Your task to perform on an android device: check battery use Image 0: 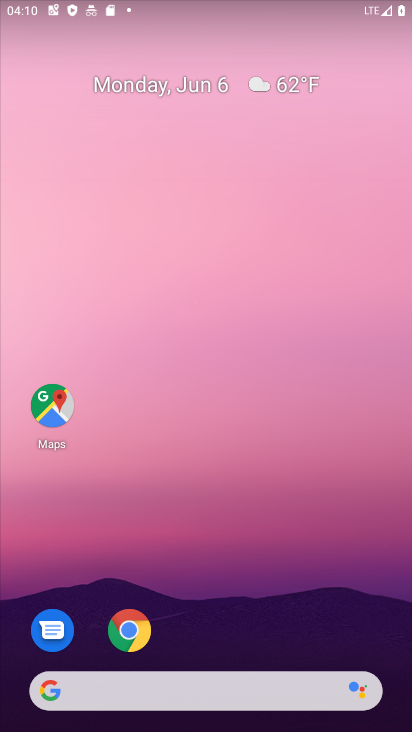
Step 0: press home button
Your task to perform on an android device: check battery use Image 1: 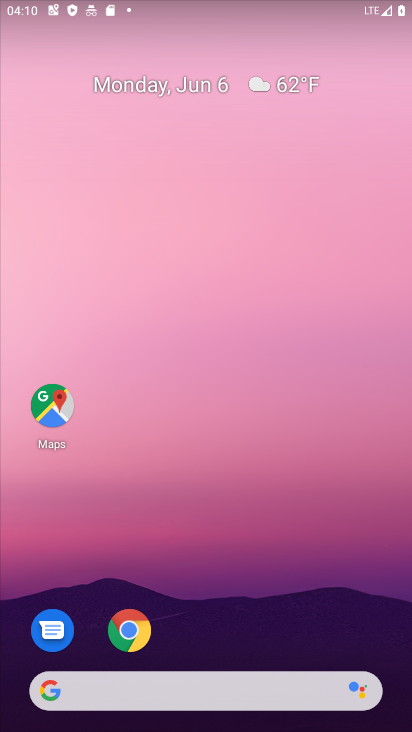
Step 1: drag from (306, 676) to (284, 61)
Your task to perform on an android device: check battery use Image 2: 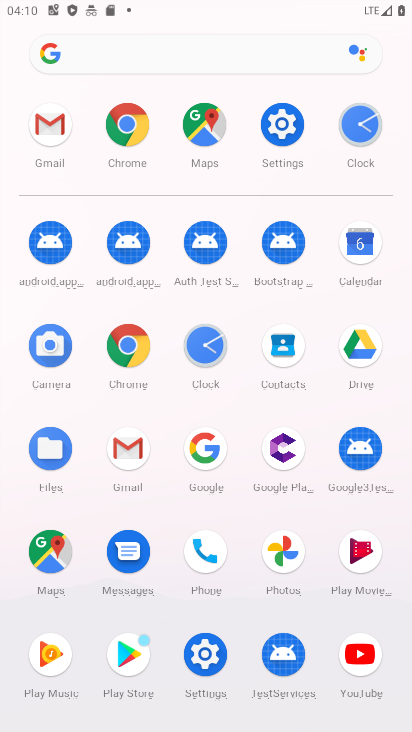
Step 2: click (215, 666)
Your task to perform on an android device: check battery use Image 3: 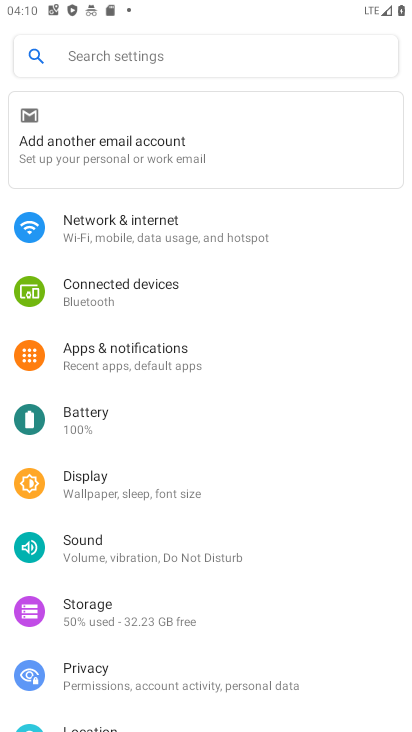
Step 3: click (239, 46)
Your task to perform on an android device: check battery use Image 4: 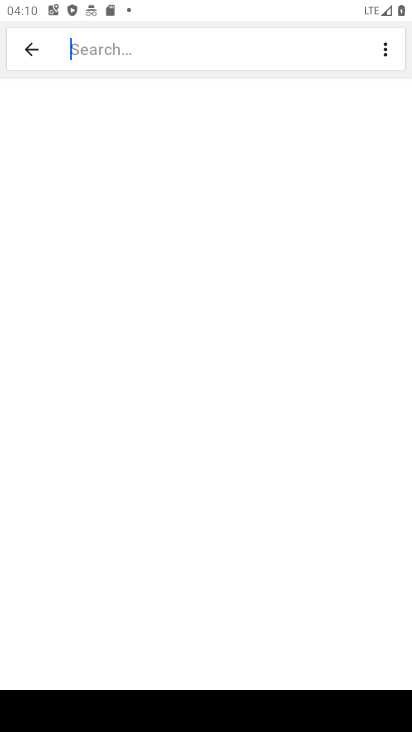
Step 4: press back button
Your task to perform on an android device: check battery use Image 5: 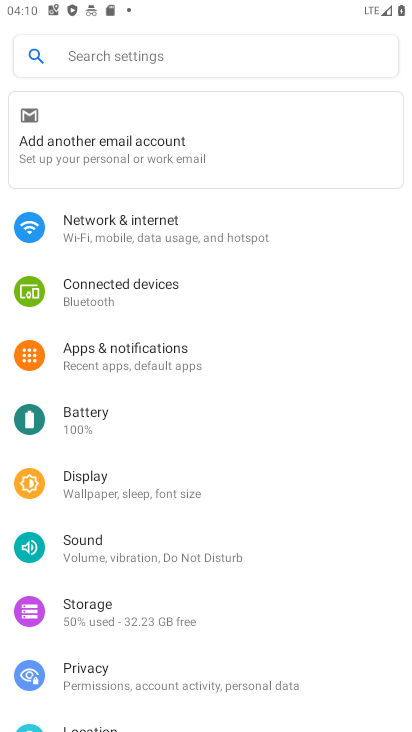
Step 5: drag from (287, 601) to (275, 302)
Your task to perform on an android device: check battery use Image 6: 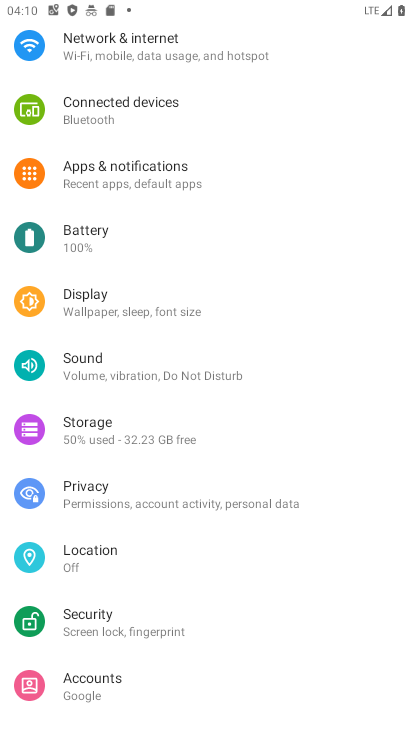
Step 6: click (72, 240)
Your task to perform on an android device: check battery use Image 7: 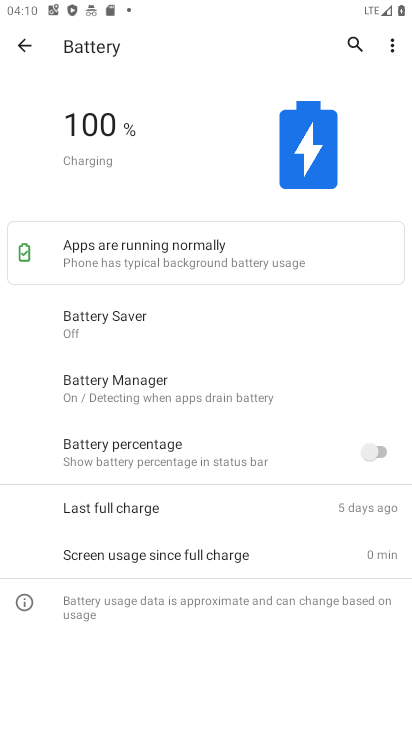
Step 7: task complete